Your task to perform on an android device: set the timer Image 0: 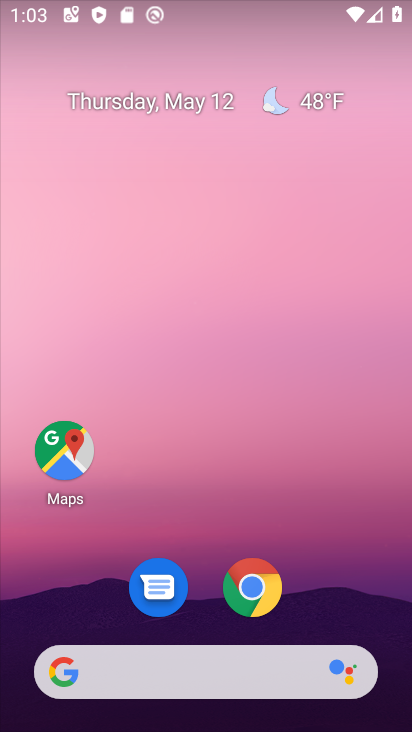
Step 0: drag from (189, 625) to (274, 303)
Your task to perform on an android device: set the timer Image 1: 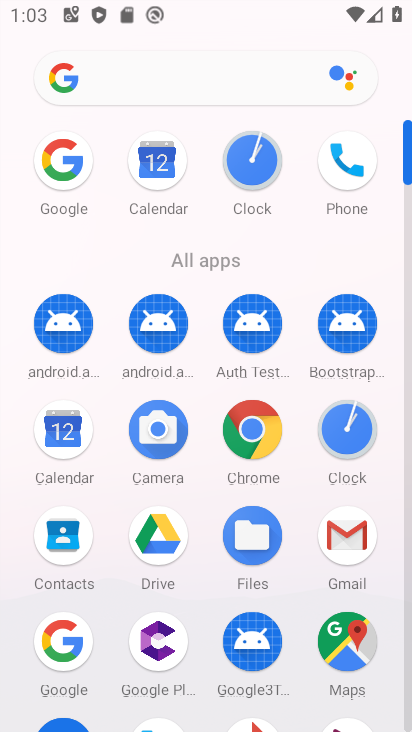
Step 1: drag from (215, 502) to (220, 274)
Your task to perform on an android device: set the timer Image 2: 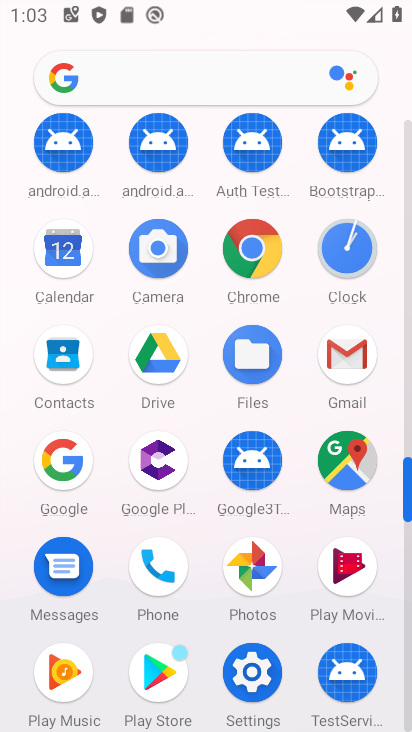
Step 2: click (349, 294)
Your task to perform on an android device: set the timer Image 3: 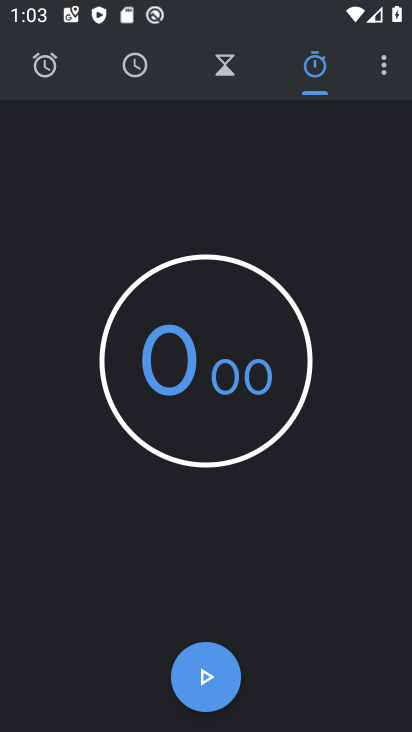
Step 3: click (227, 76)
Your task to perform on an android device: set the timer Image 4: 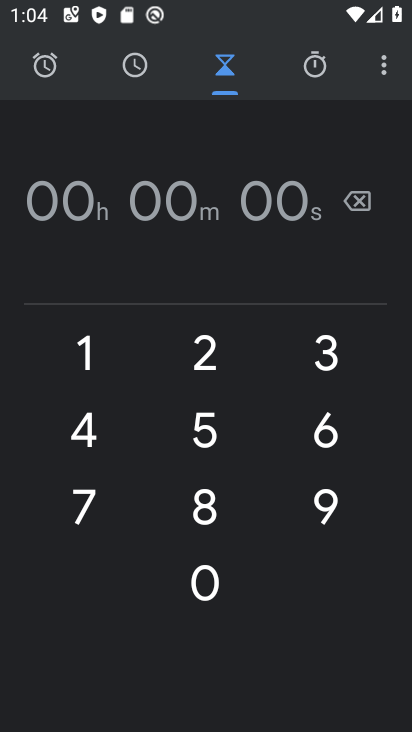
Step 4: click (212, 370)
Your task to perform on an android device: set the timer Image 5: 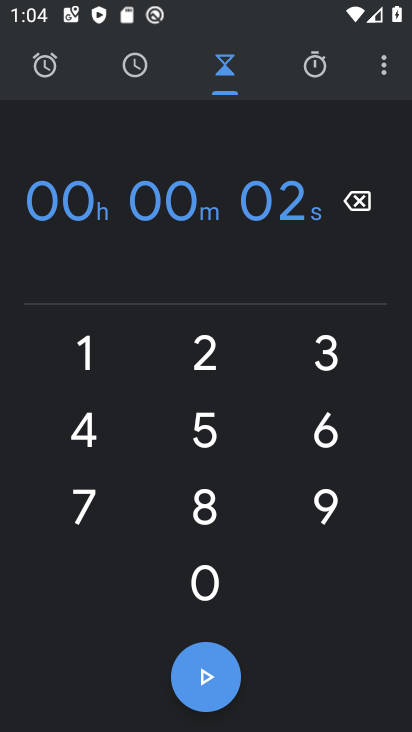
Step 5: click (202, 676)
Your task to perform on an android device: set the timer Image 6: 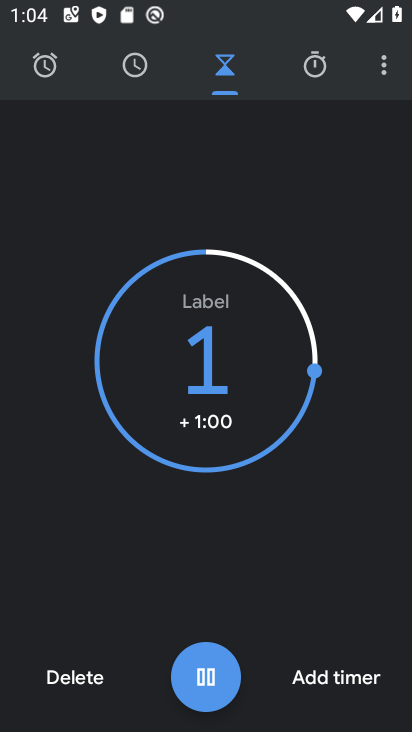
Step 6: task complete